Your task to perform on an android device: open the mobile data screen to see how much data has been used Image 0: 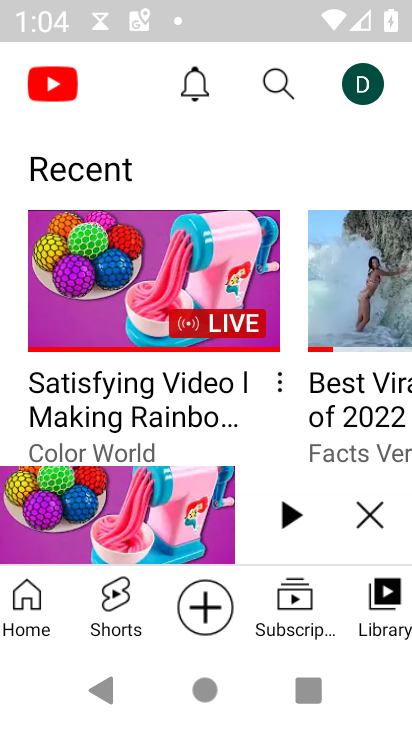
Step 0: press home button
Your task to perform on an android device: open the mobile data screen to see how much data has been used Image 1: 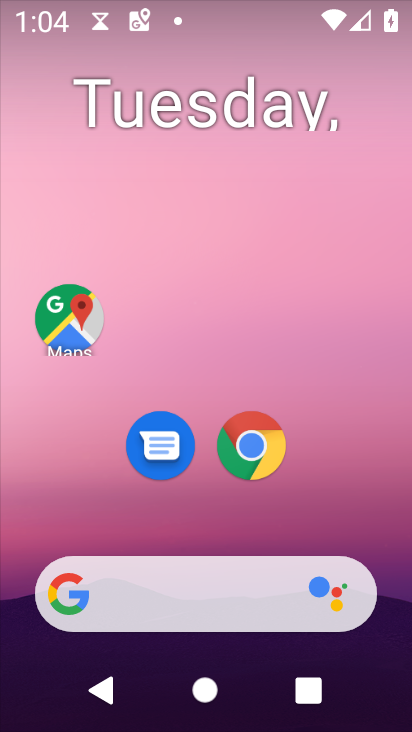
Step 1: drag from (276, 568) to (282, 22)
Your task to perform on an android device: open the mobile data screen to see how much data has been used Image 2: 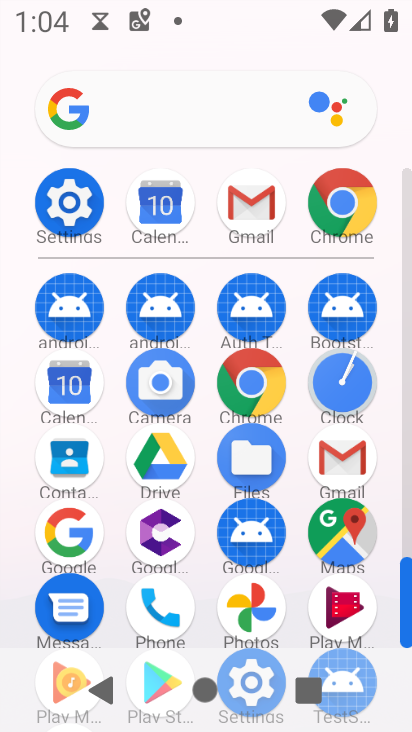
Step 2: click (64, 206)
Your task to perform on an android device: open the mobile data screen to see how much data has been used Image 3: 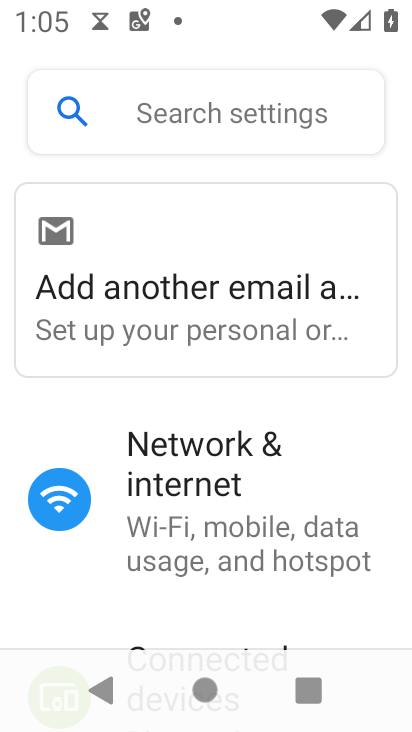
Step 3: click (208, 540)
Your task to perform on an android device: open the mobile data screen to see how much data has been used Image 4: 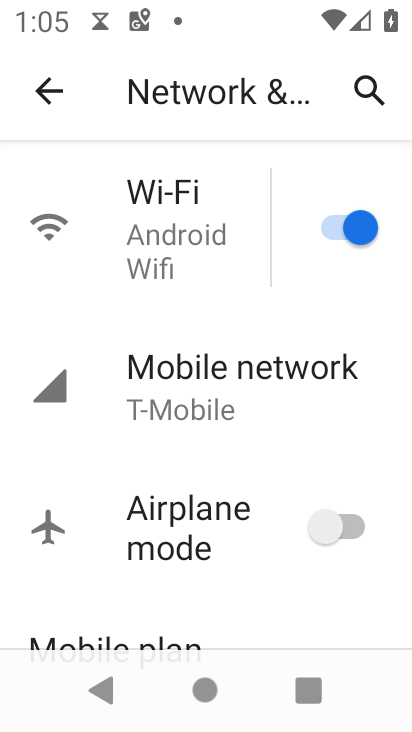
Step 4: click (231, 401)
Your task to perform on an android device: open the mobile data screen to see how much data has been used Image 5: 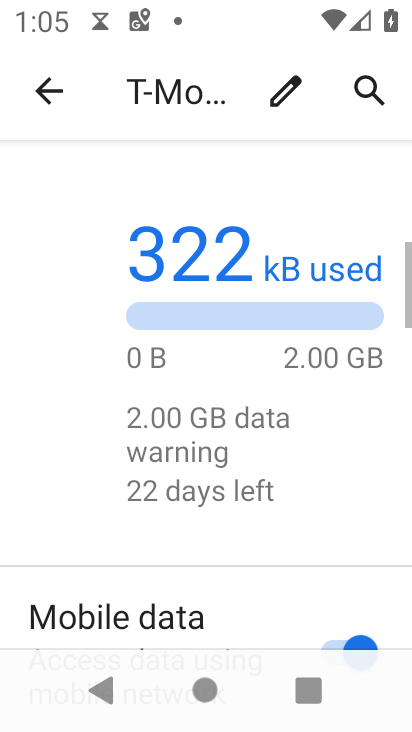
Step 5: task complete